Your task to perform on an android device: View the shopping cart on bestbuy.com. Add "razer nari" to the cart on bestbuy.com, then select checkout. Image 0: 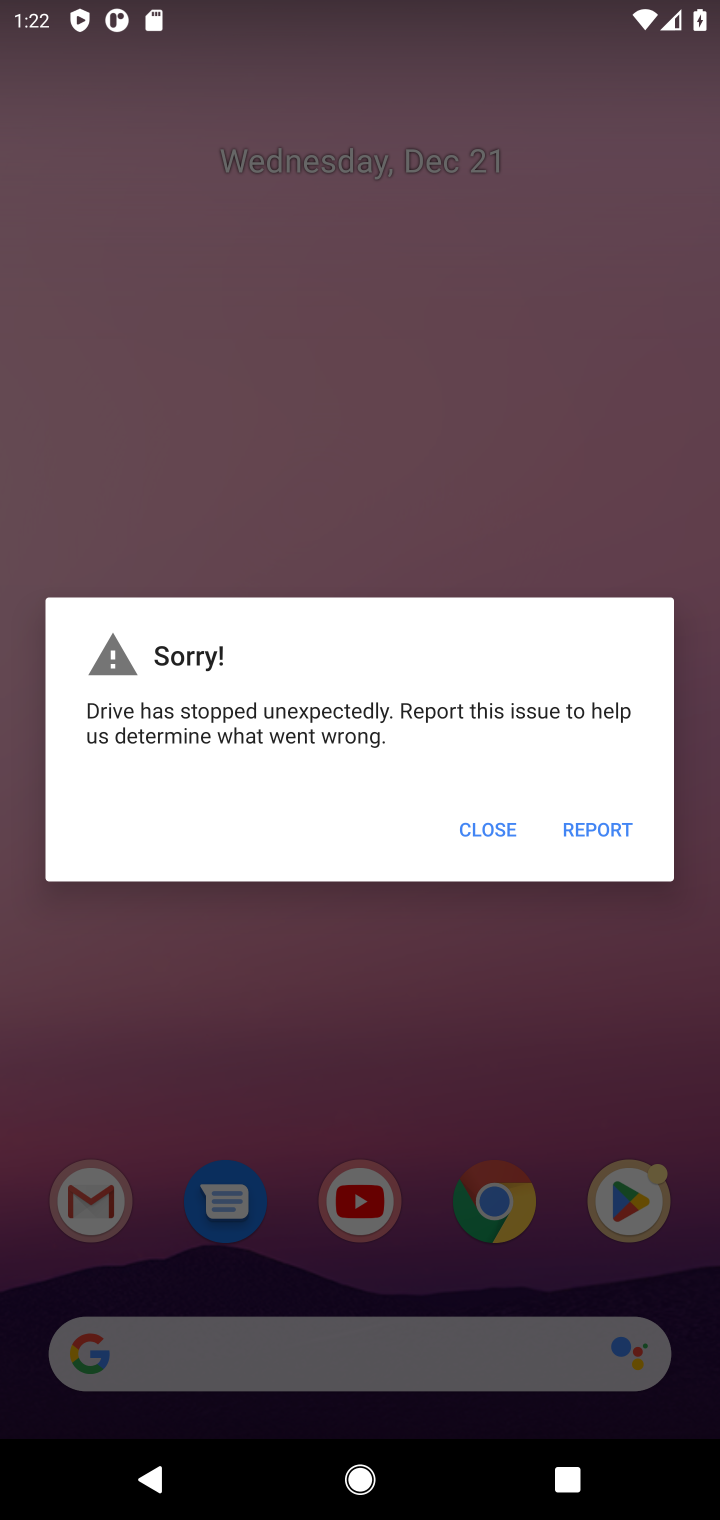
Step 0: press home button
Your task to perform on an android device: View the shopping cart on bestbuy.com. Add "razer nari" to the cart on bestbuy.com, then select checkout. Image 1: 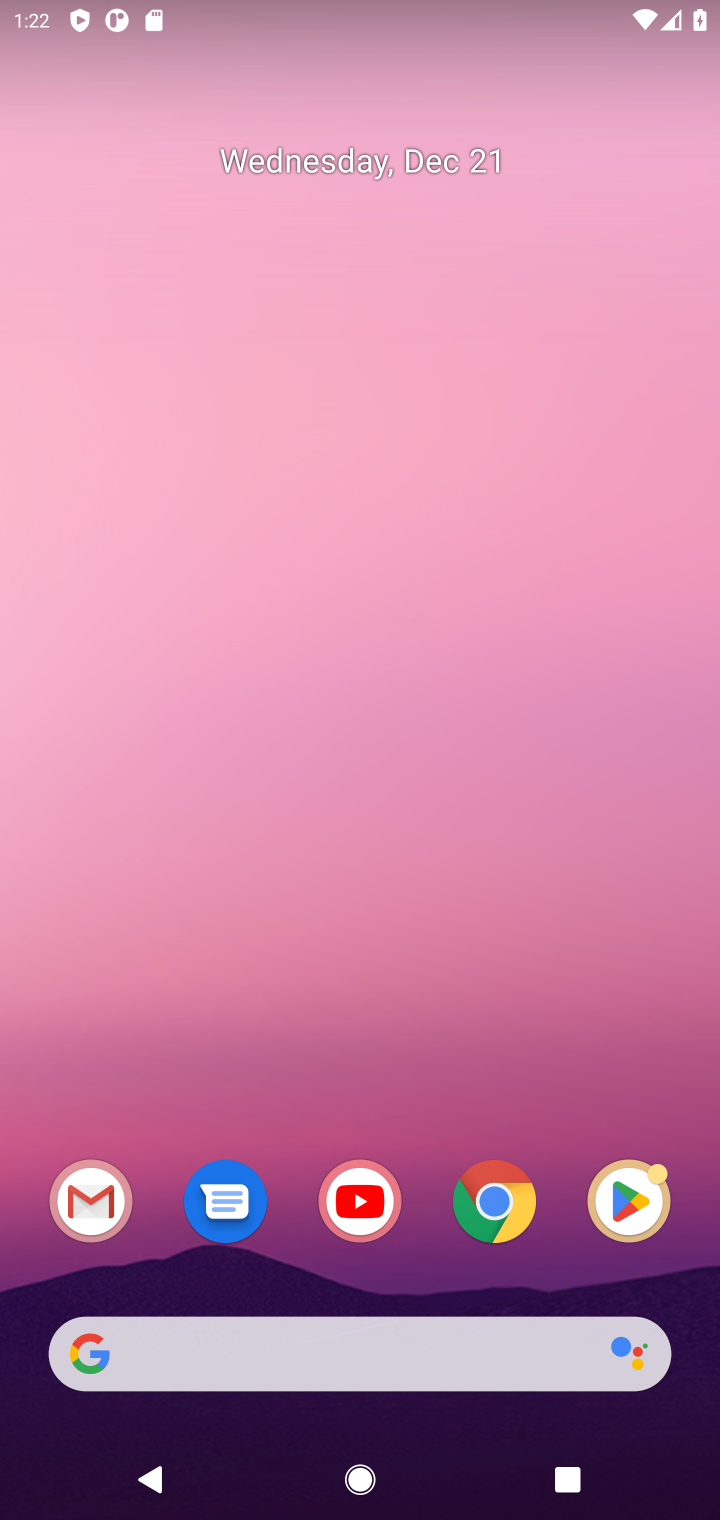
Step 1: click (499, 1209)
Your task to perform on an android device: View the shopping cart on bestbuy.com. Add "razer nari" to the cart on bestbuy.com, then select checkout. Image 2: 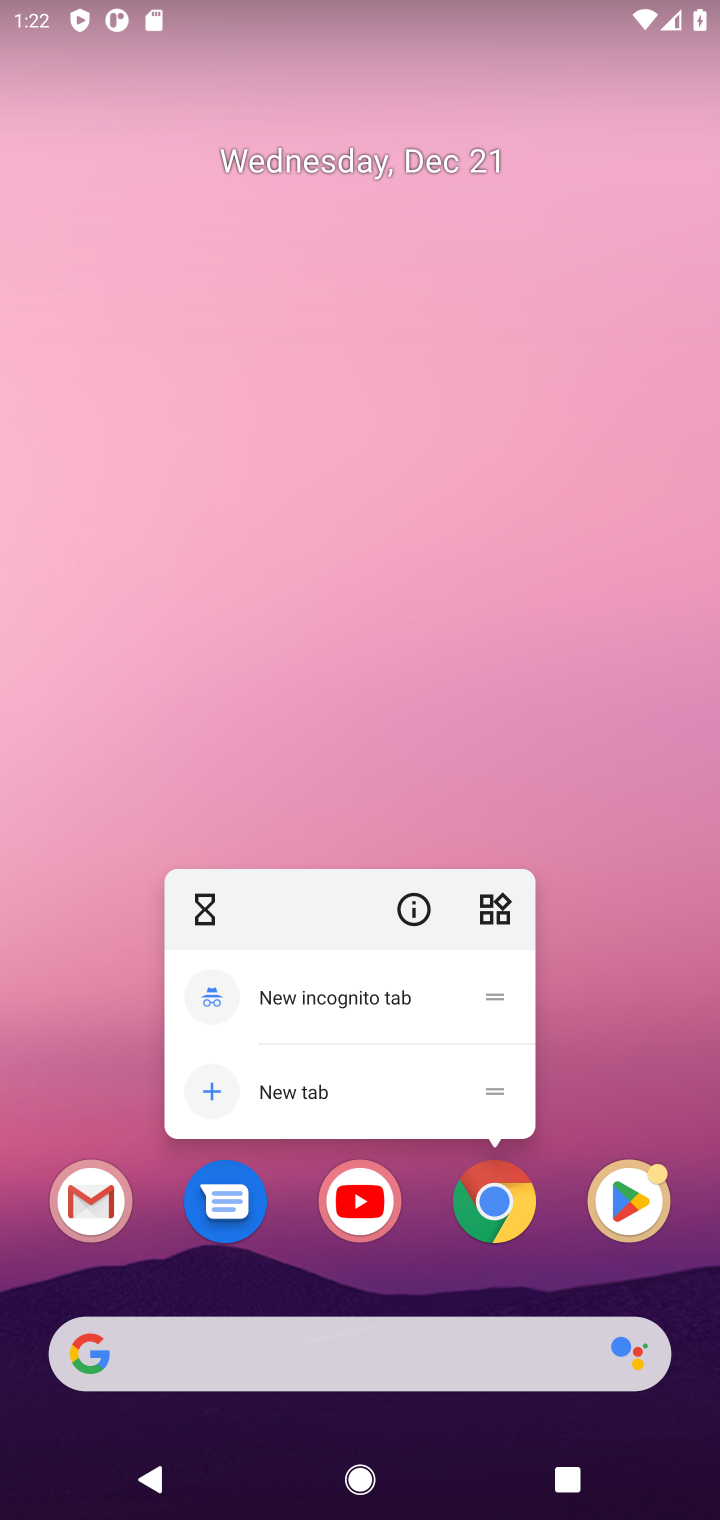
Step 2: click (499, 1209)
Your task to perform on an android device: View the shopping cart on bestbuy.com. Add "razer nari" to the cart on bestbuy.com, then select checkout. Image 3: 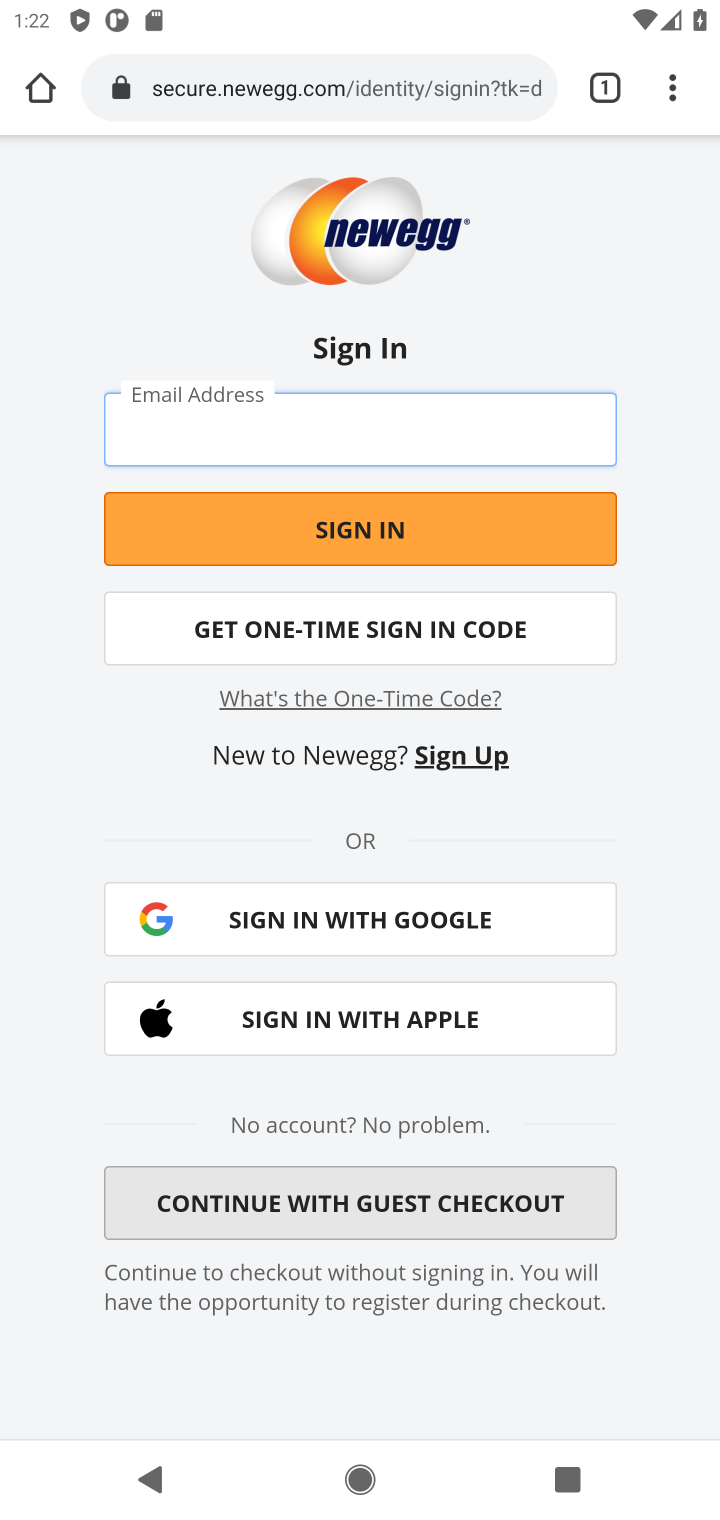
Step 3: click (305, 90)
Your task to perform on an android device: View the shopping cart on bestbuy.com. Add "razer nari" to the cart on bestbuy.com, then select checkout. Image 4: 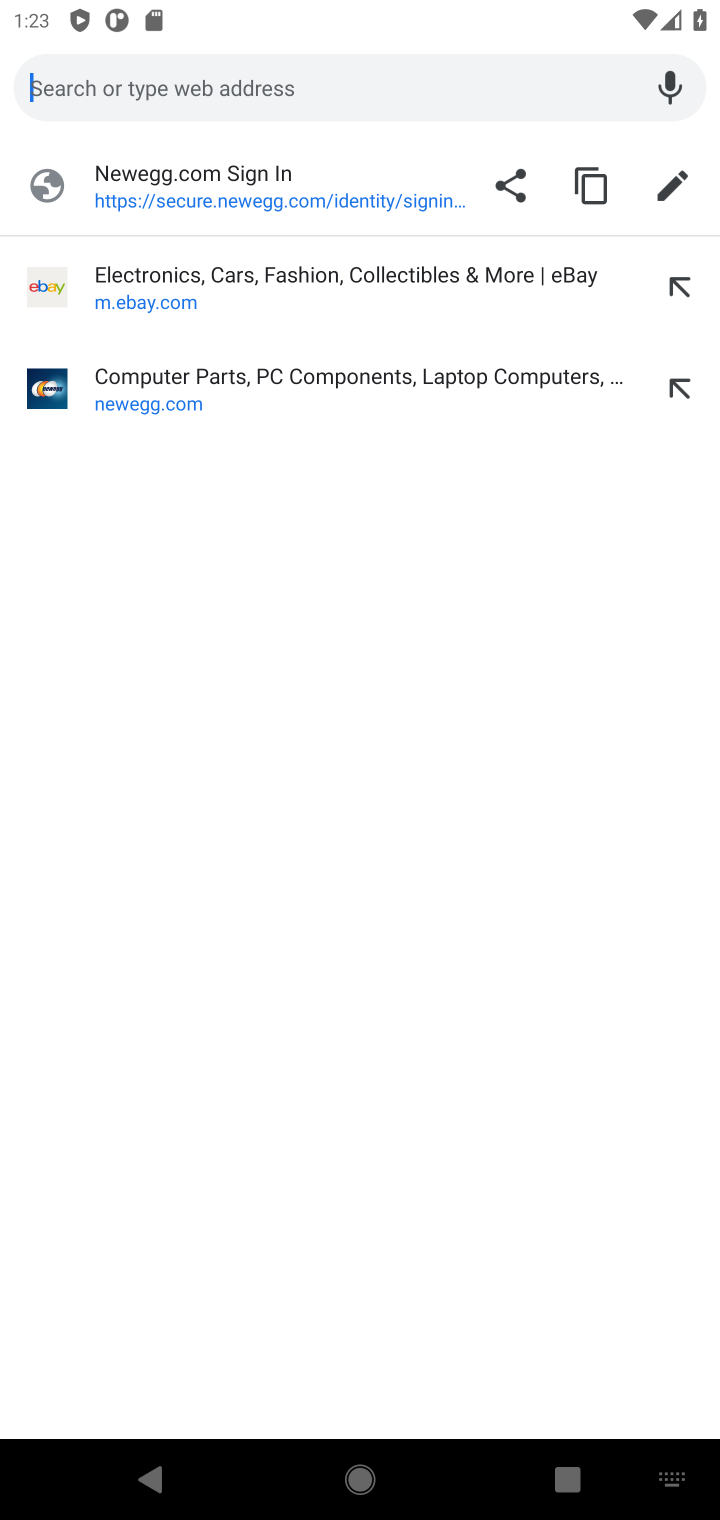
Step 4: type "bestbuy.com"
Your task to perform on an android device: View the shopping cart on bestbuy.com. Add "razer nari" to the cart on bestbuy.com, then select checkout. Image 5: 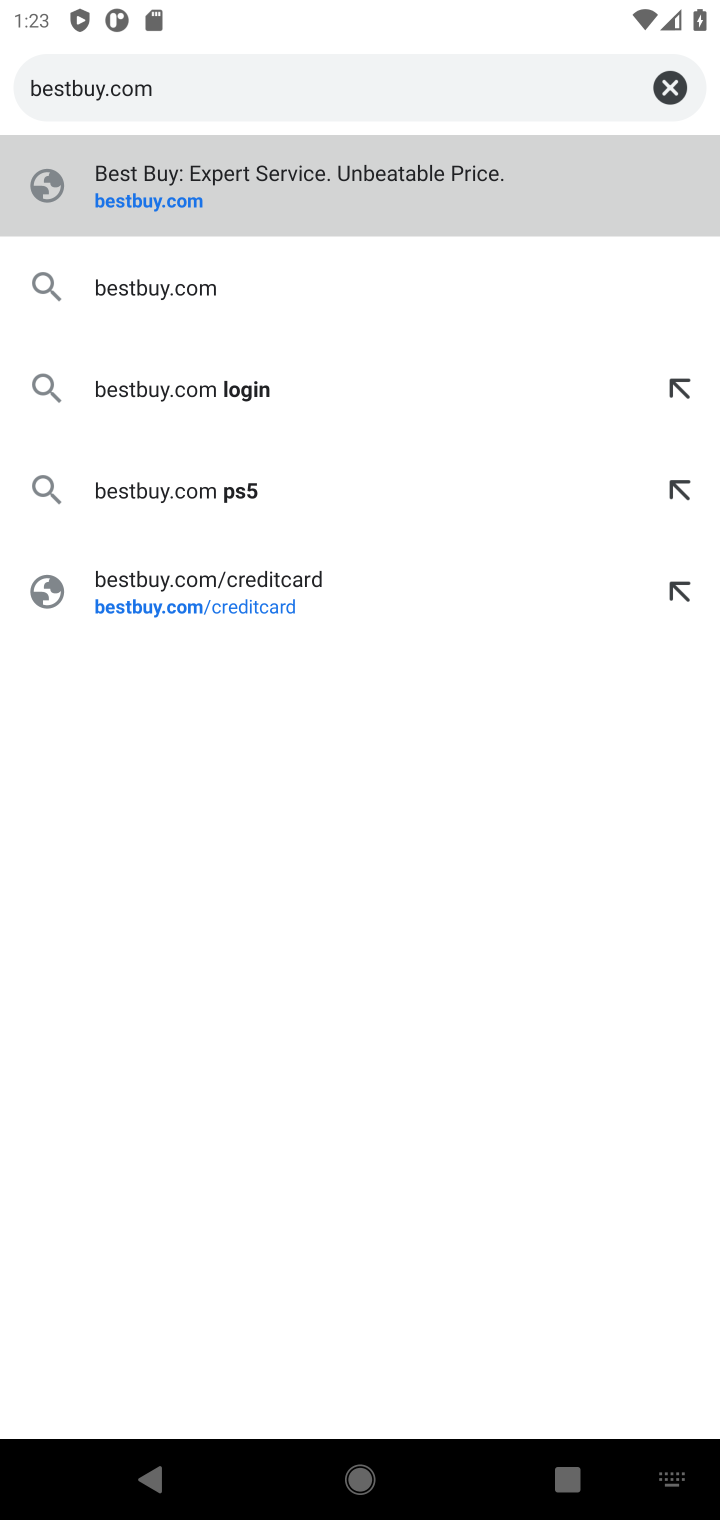
Step 5: click (161, 196)
Your task to perform on an android device: View the shopping cart on bestbuy.com. Add "razer nari" to the cart on bestbuy.com, then select checkout. Image 6: 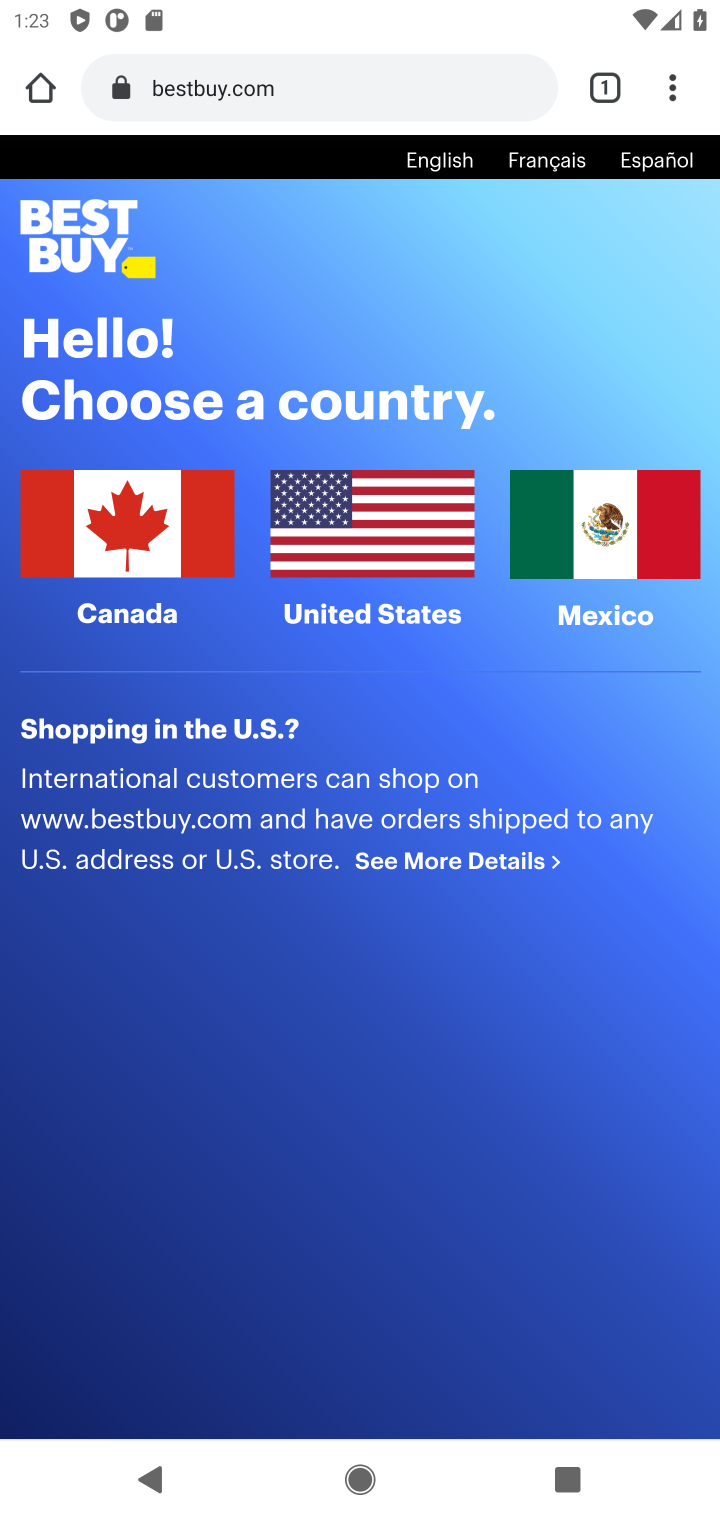
Step 6: click (366, 555)
Your task to perform on an android device: View the shopping cart on bestbuy.com. Add "razer nari" to the cart on bestbuy.com, then select checkout. Image 7: 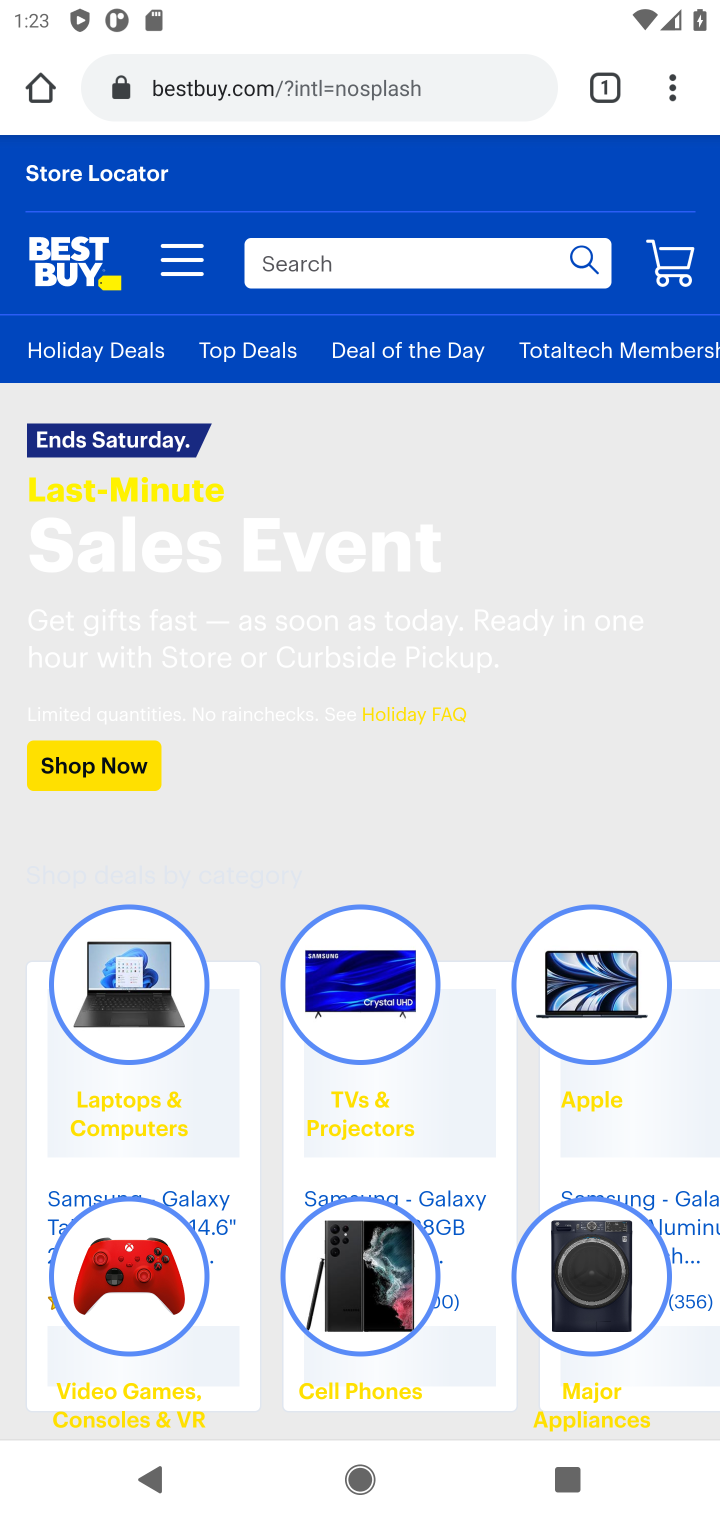
Step 7: click (680, 279)
Your task to perform on an android device: View the shopping cart on bestbuy.com. Add "razer nari" to the cart on bestbuy.com, then select checkout. Image 8: 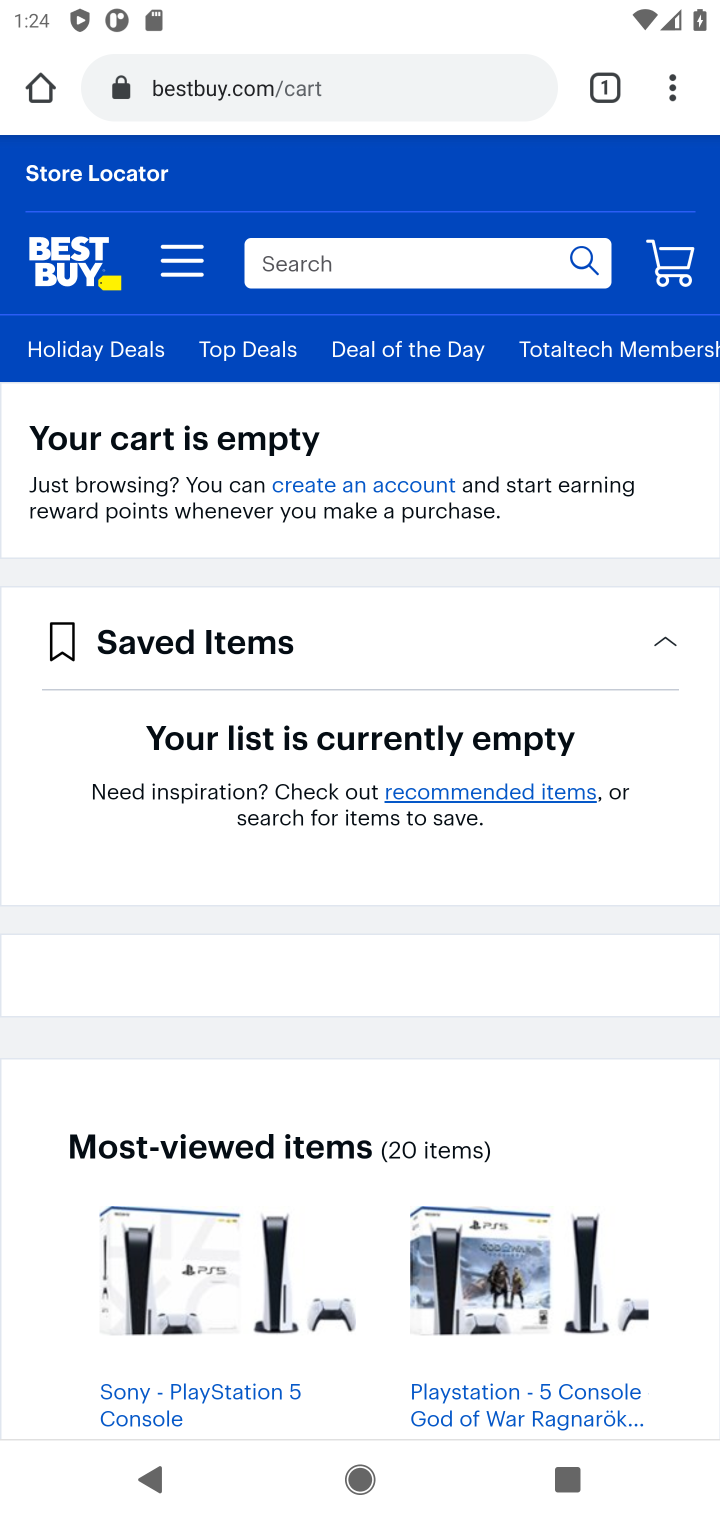
Step 8: click (276, 271)
Your task to perform on an android device: View the shopping cart on bestbuy.com. Add "razer nari" to the cart on bestbuy.com, then select checkout. Image 9: 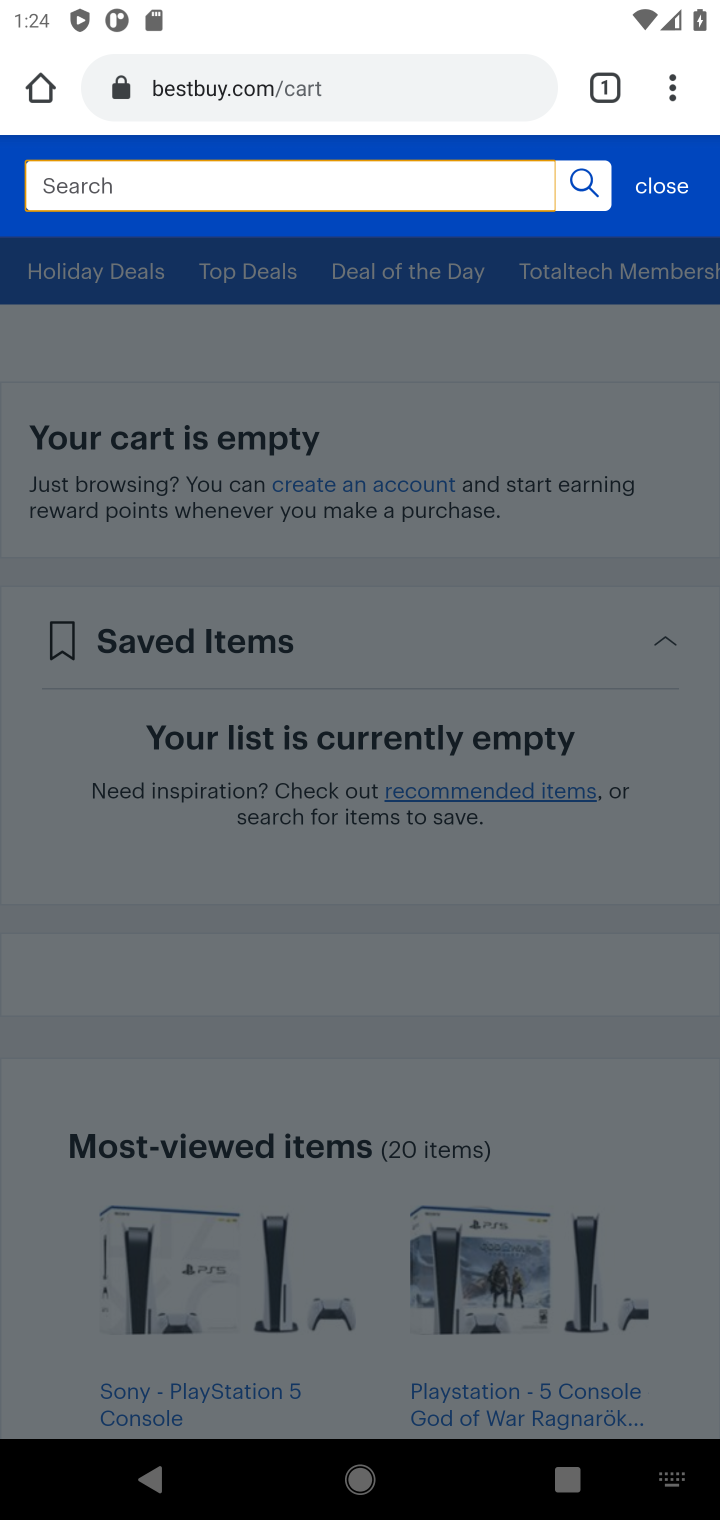
Step 9: type "razer nari"
Your task to perform on an android device: View the shopping cart on bestbuy.com. Add "razer nari" to the cart on bestbuy.com, then select checkout. Image 10: 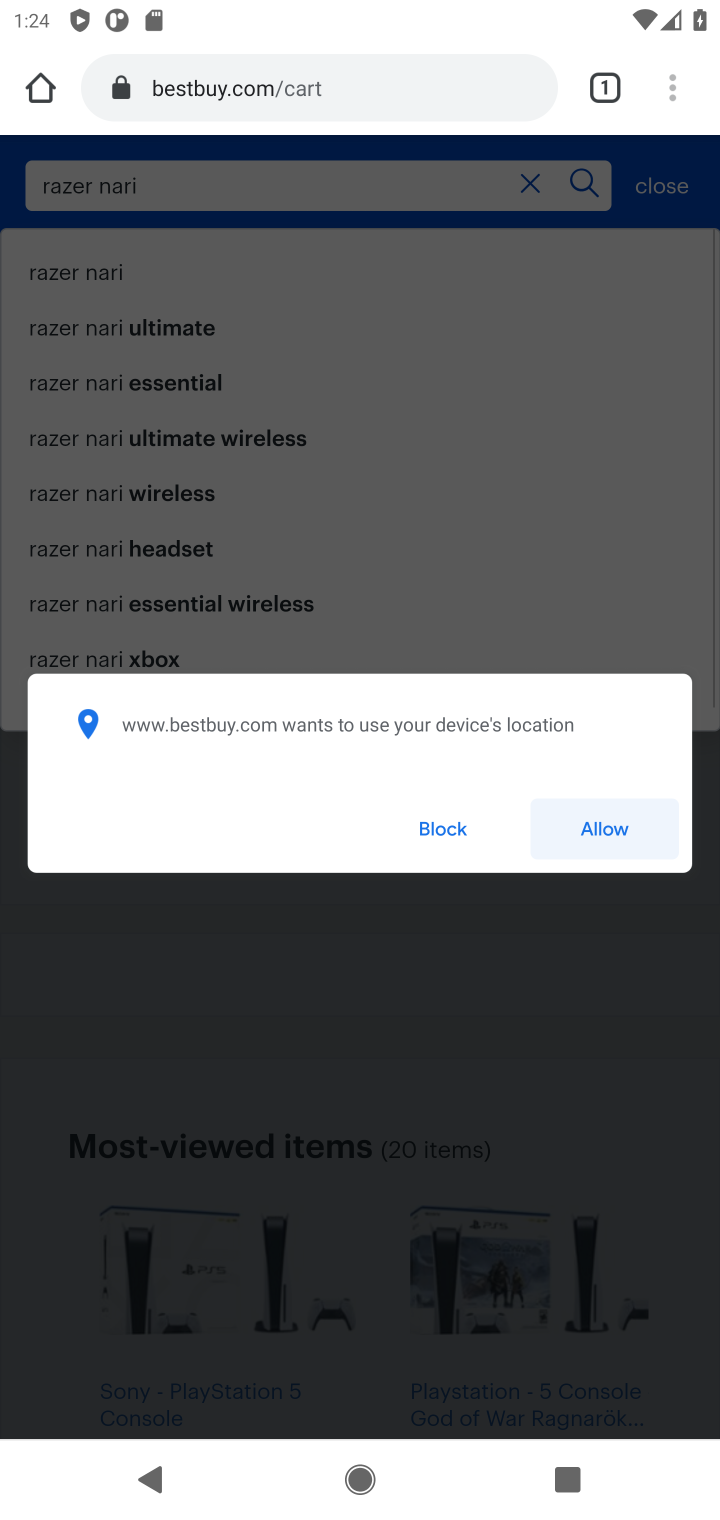
Step 10: click (436, 834)
Your task to perform on an android device: View the shopping cart on bestbuy.com. Add "razer nari" to the cart on bestbuy.com, then select checkout. Image 11: 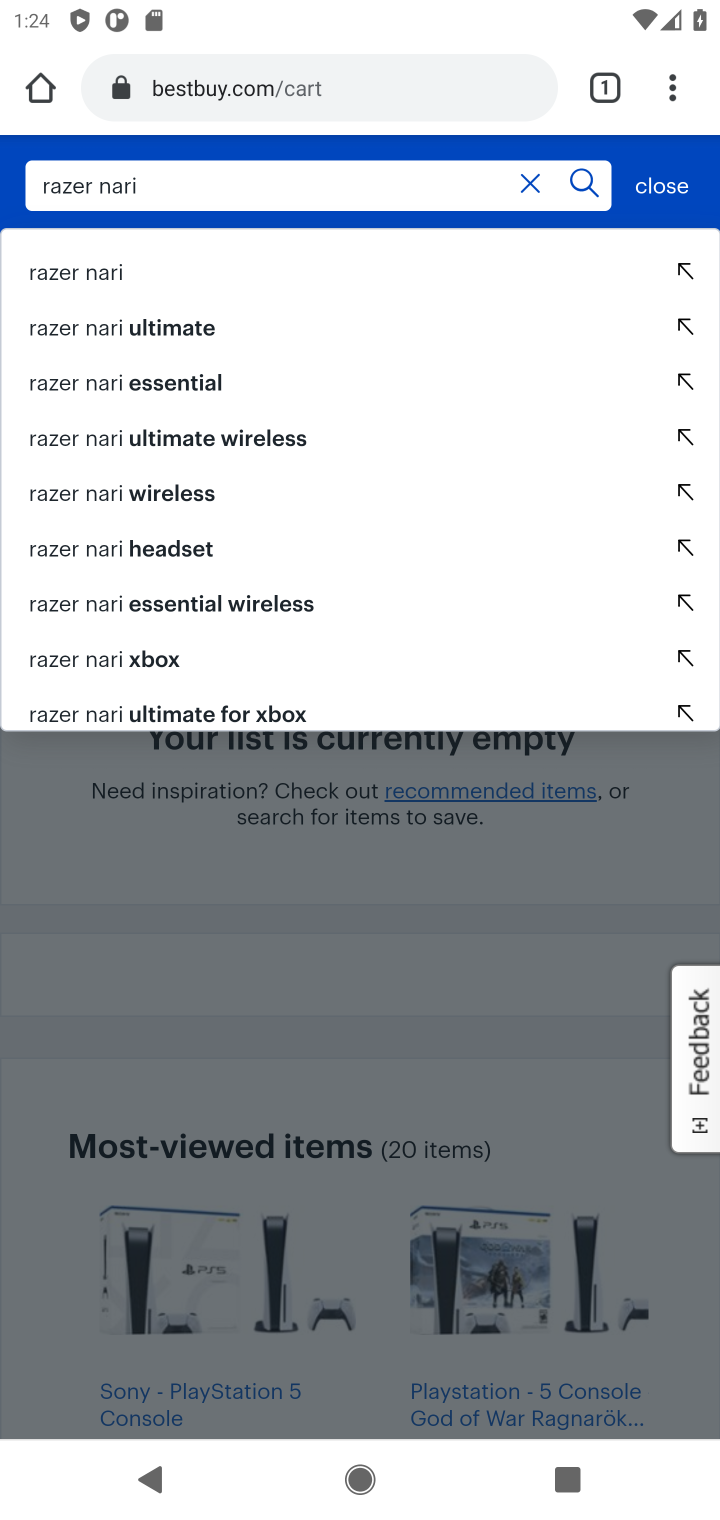
Step 11: click (64, 283)
Your task to perform on an android device: View the shopping cart on bestbuy.com. Add "razer nari" to the cart on bestbuy.com, then select checkout. Image 12: 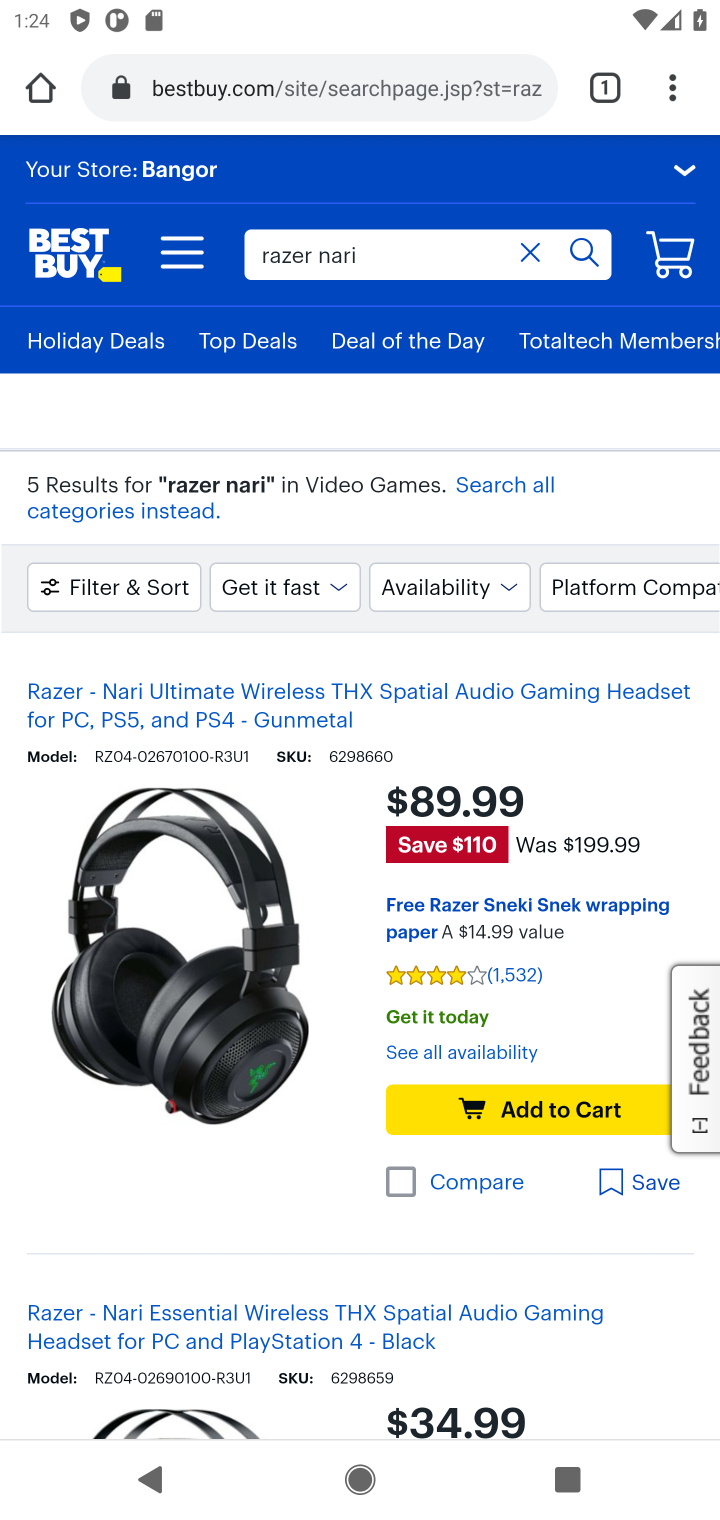
Step 12: click (484, 1116)
Your task to perform on an android device: View the shopping cart on bestbuy.com. Add "razer nari" to the cart on bestbuy.com, then select checkout. Image 13: 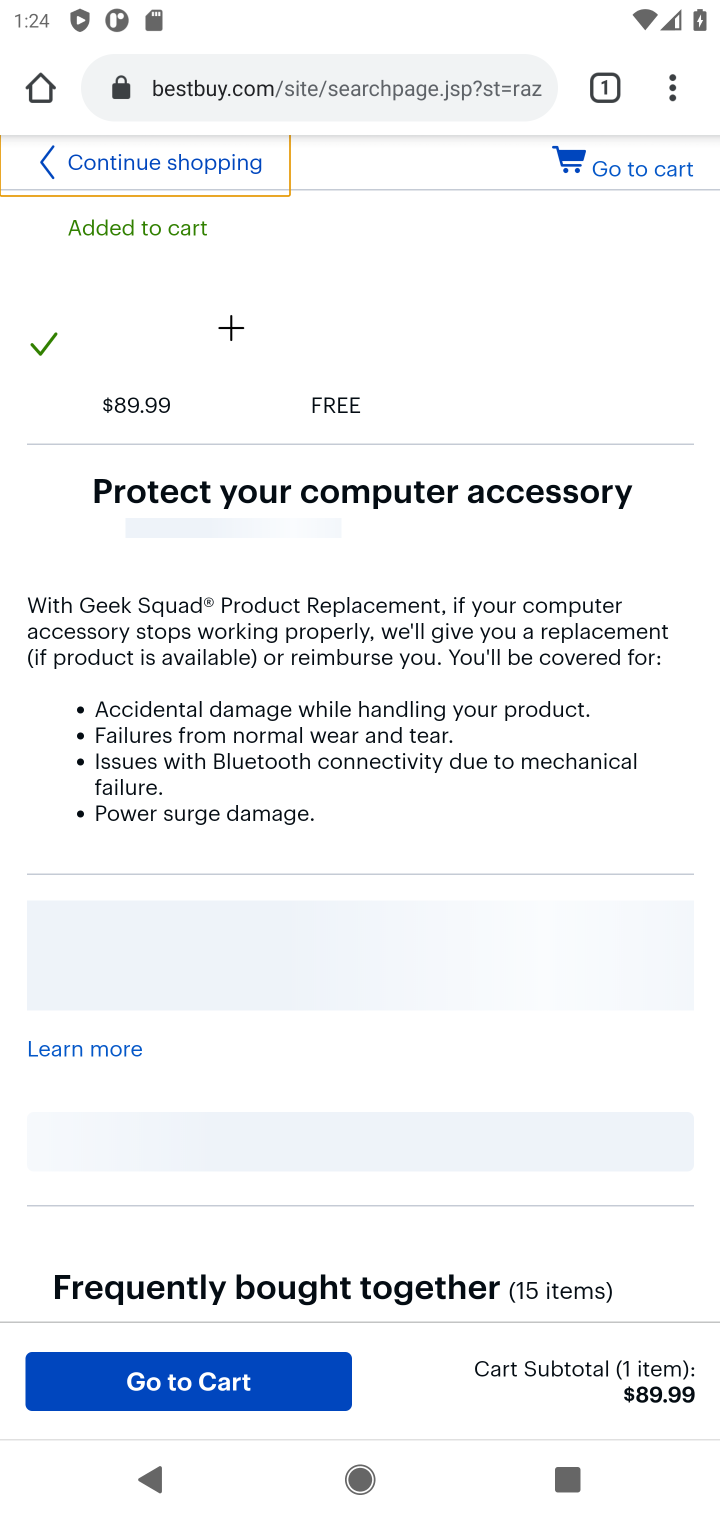
Step 13: click (657, 178)
Your task to perform on an android device: View the shopping cart on bestbuy.com. Add "razer nari" to the cart on bestbuy.com, then select checkout. Image 14: 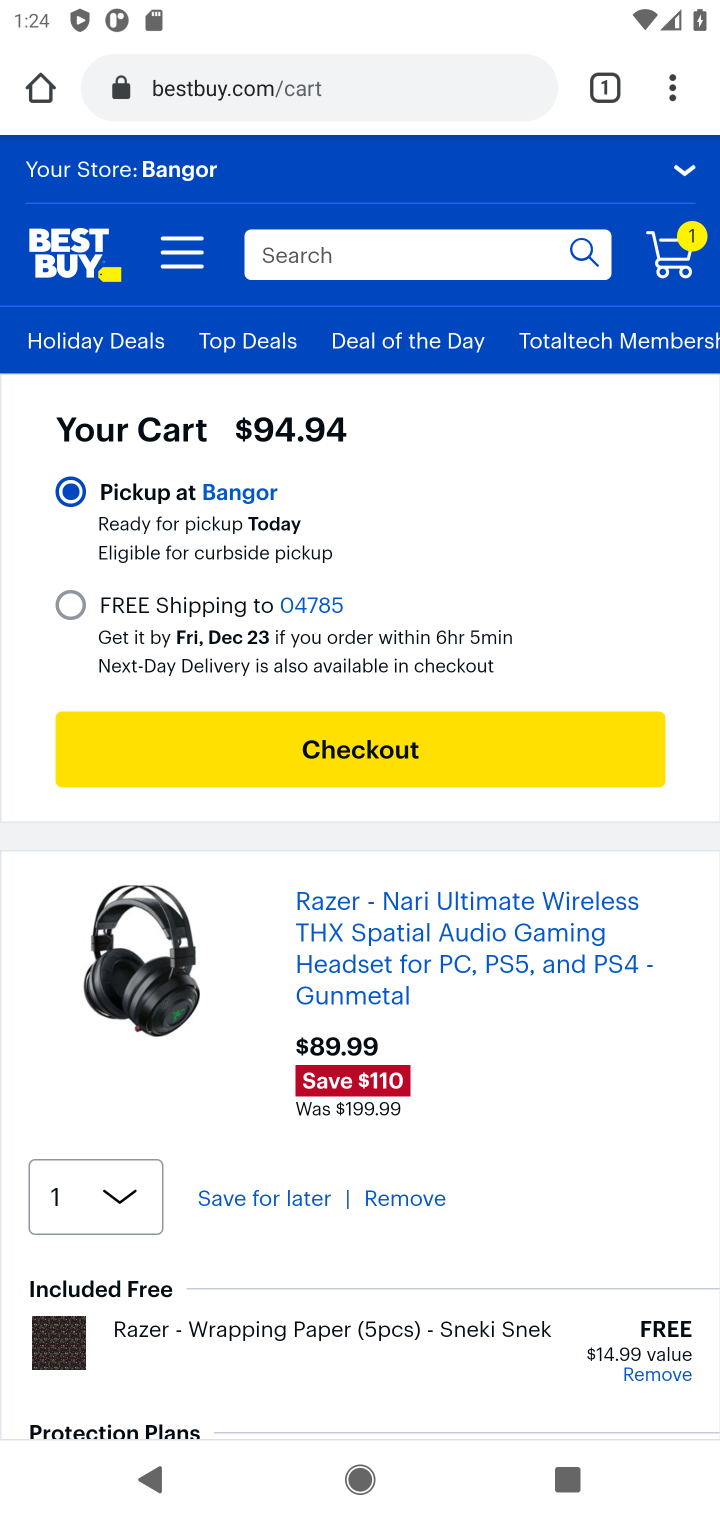
Step 14: click (345, 743)
Your task to perform on an android device: View the shopping cart on bestbuy.com. Add "razer nari" to the cart on bestbuy.com, then select checkout. Image 15: 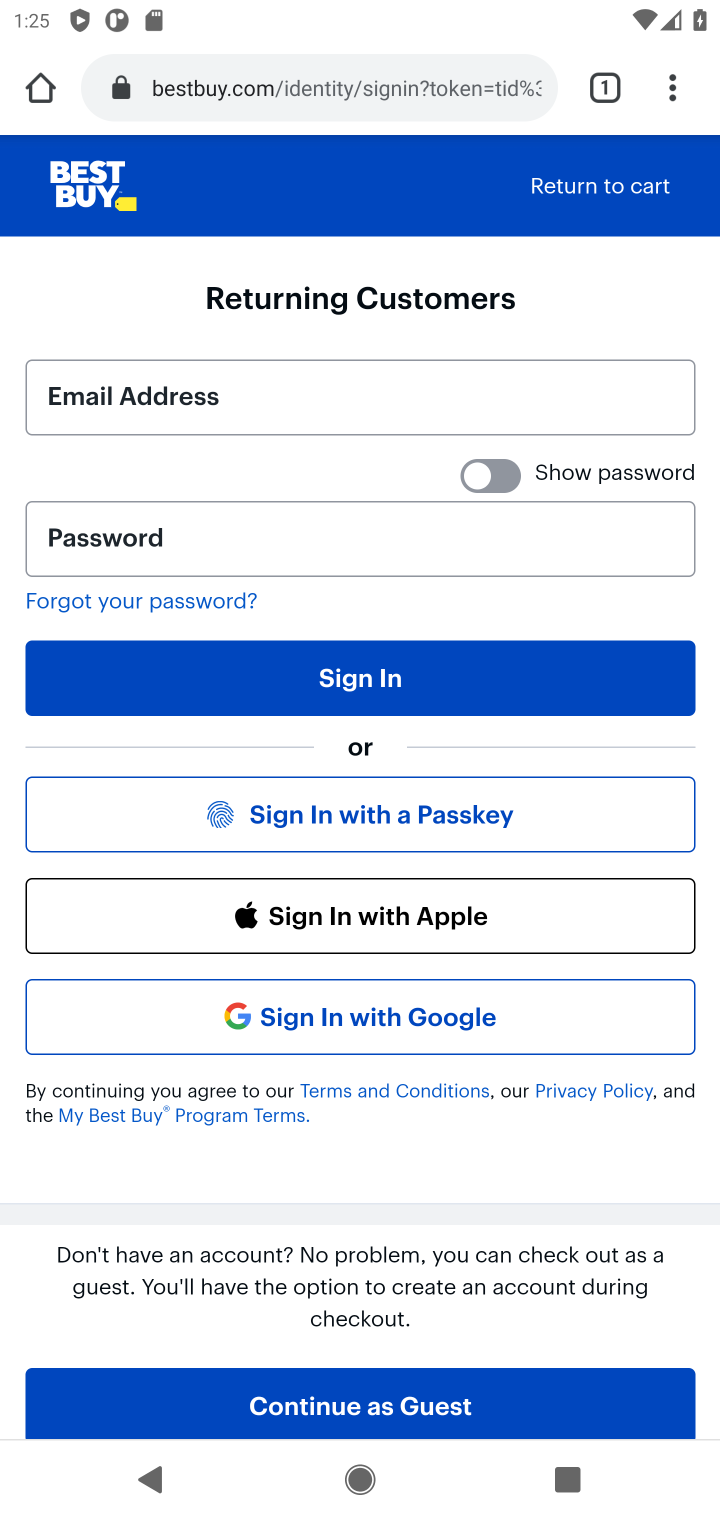
Step 15: task complete